Your task to perform on an android device: Open the stopwatch Image 0: 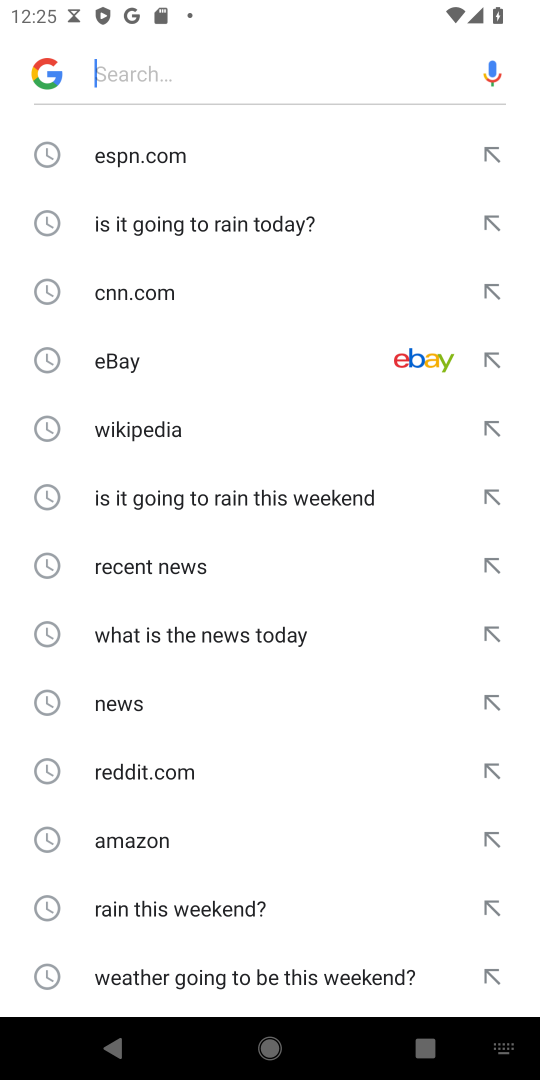
Step 0: press home button
Your task to perform on an android device: Open the stopwatch Image 1: 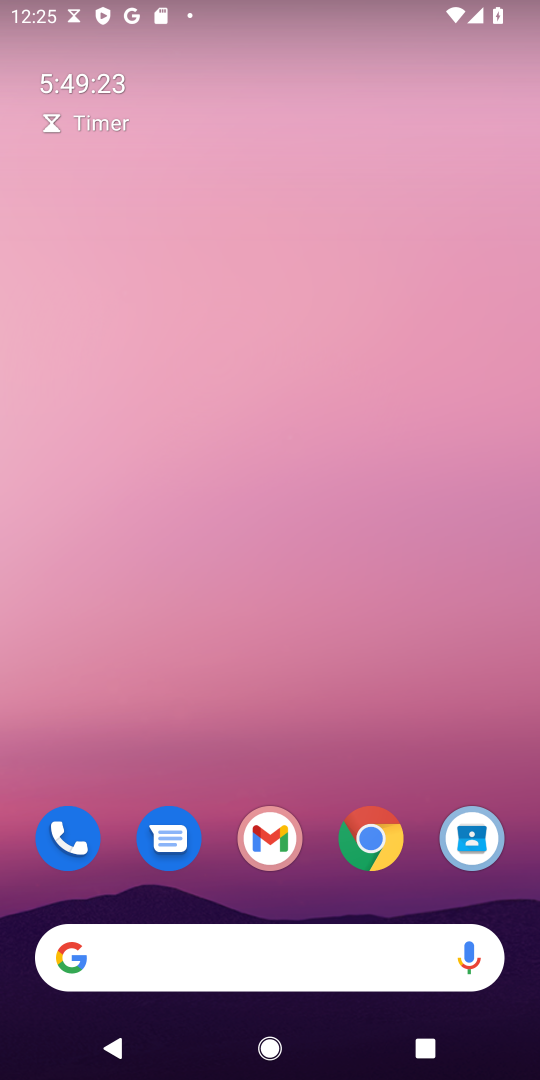
Step 1: drag from (371, 750) to (305, 241)
Your task to perform on an android device: Open the stopwatch Image 2: 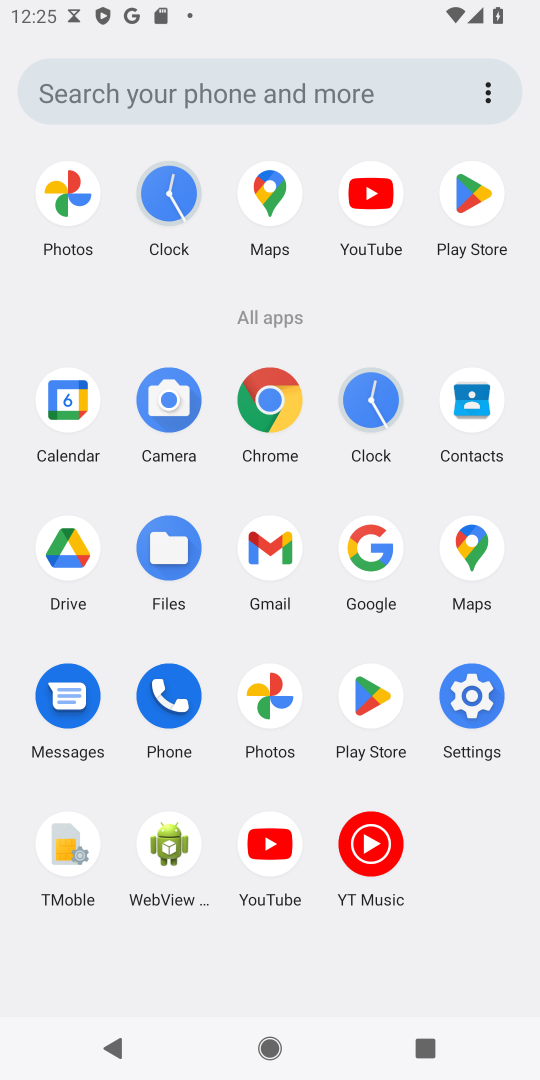
Step 2: click (371, 402)
Your task to perform on an android device: Open the stopwatch Image 3: 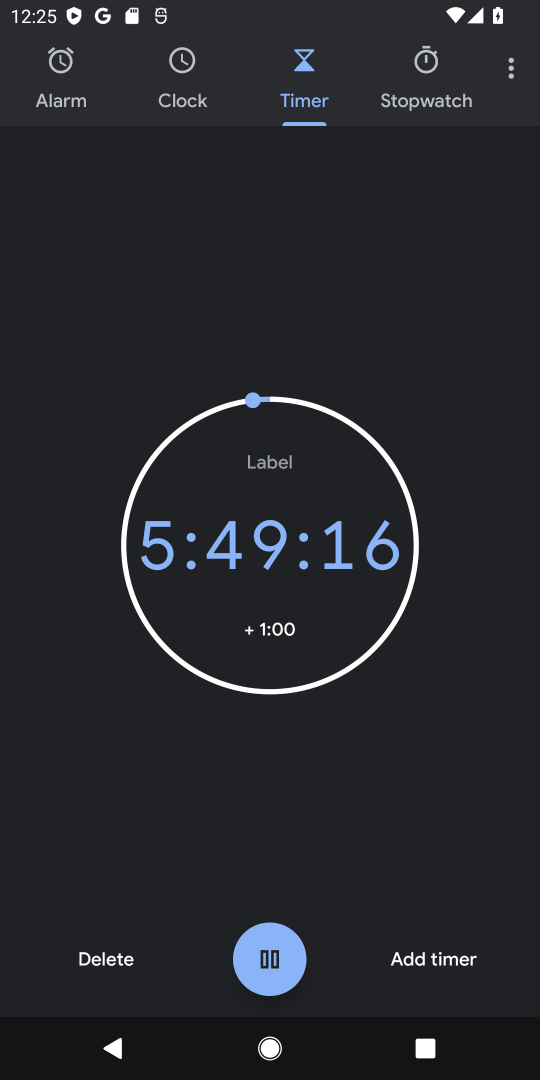
Step 3: click (427, 80)
Your task to perform on an android device: Open the stopwatch Image 4: 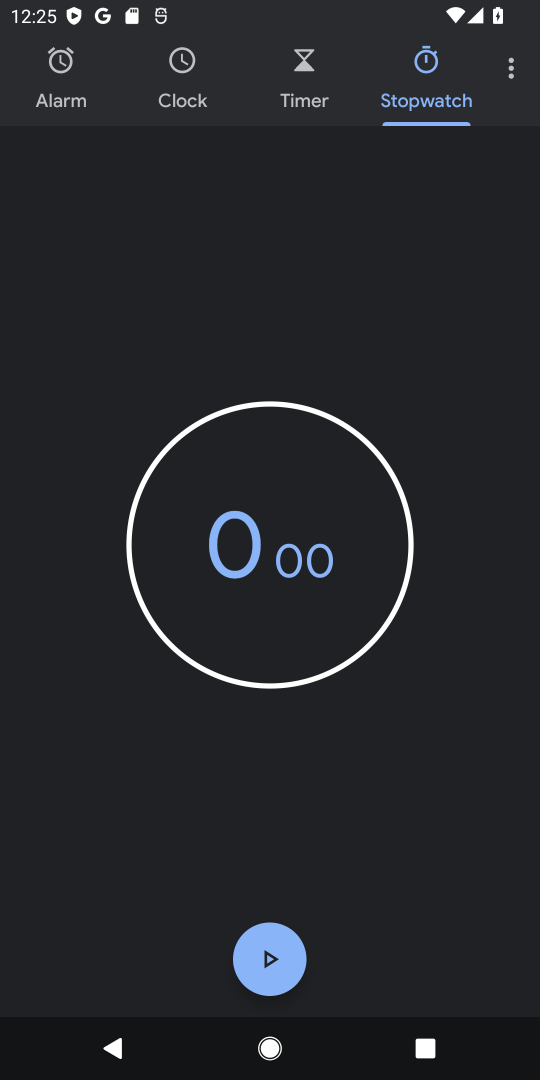
Step 4: task complete